Your task to perform on an android device: toggle priority inbox in the gmail app Image 0: 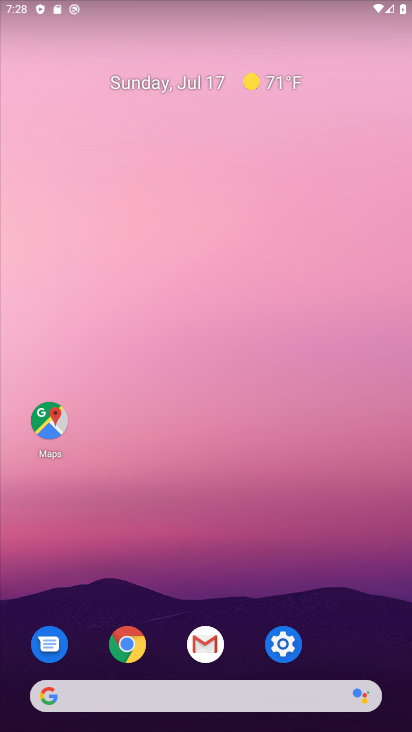
Step 0: click (208, 635)
Your task to perform on an android device: toggle priority inbox in the gmail app Image 1: 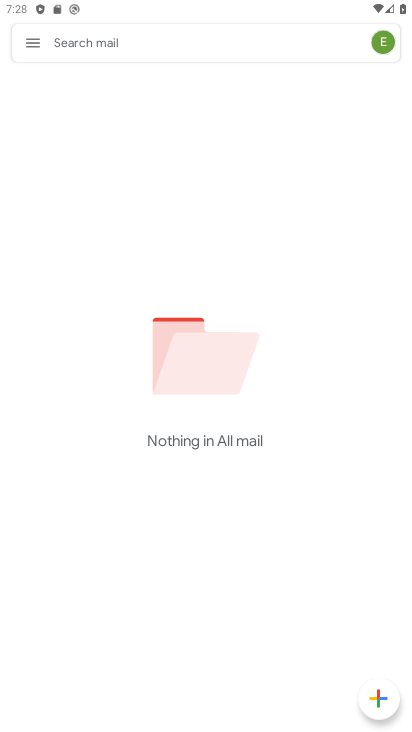
Step 1: click (33, 50)
Your task to perform on an android device: toggle priority inbox in the gmail app Image 2: 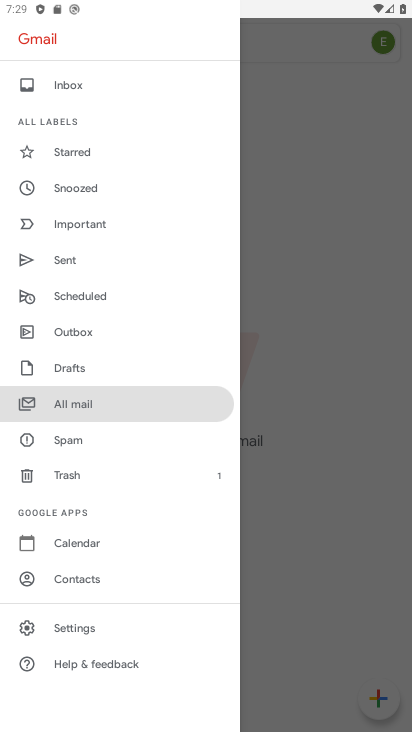
Step 2: click (69, 627)
Your task to perform on an android device: toggle priority inbox in the gmail app Image 3: 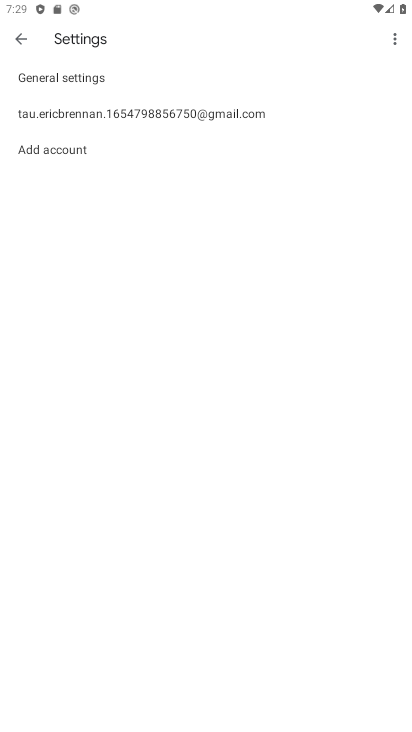
Step 3: click (114, 118)
Your task to perform on an android device: toggle priority inbox in the gmail app Image 4: 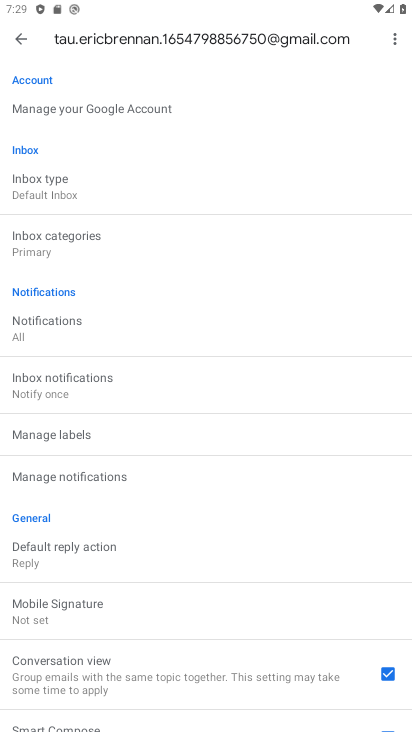
Step 4: click (43, 184)
Your task to perform on an android device: toggle priority inbox in the gmail app Image 5: 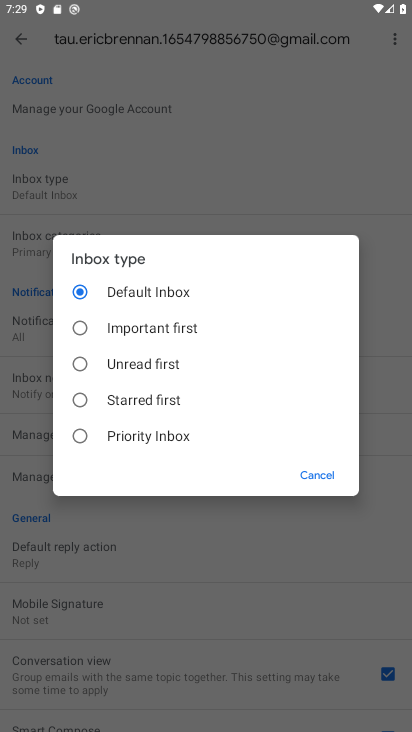
Step 5: click (123, 446)
Your task to perform on an android device: toggle priority inbox in the gmail app Image 6: 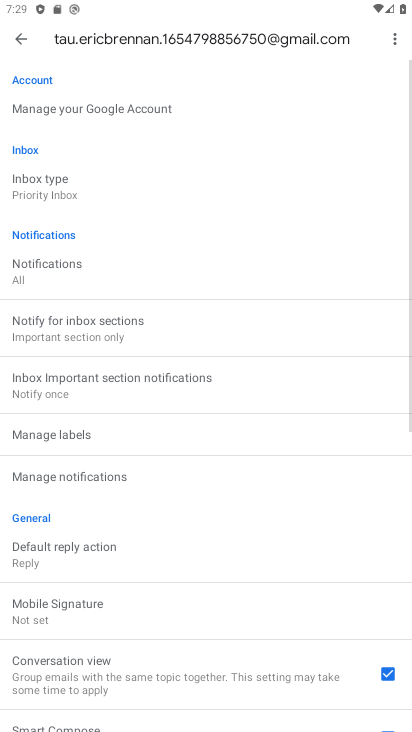
Step 6: click (81, 204)
Your task to perform on an android device: toggle priority inbox in the gmail app Image 7: 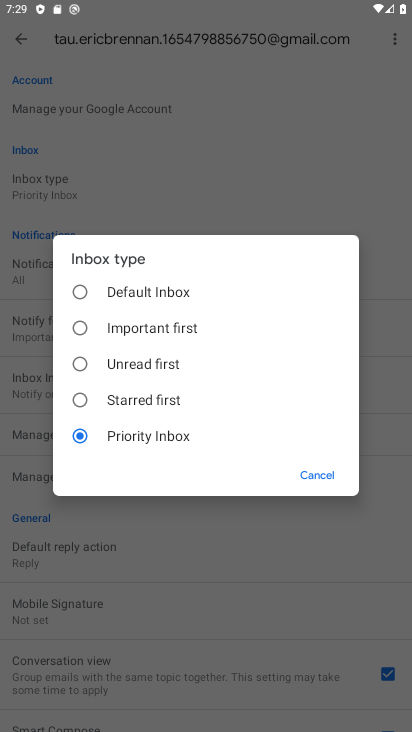
Step 7: task complete